Your task to perform on an android device: change alarm snooze length Image 0: 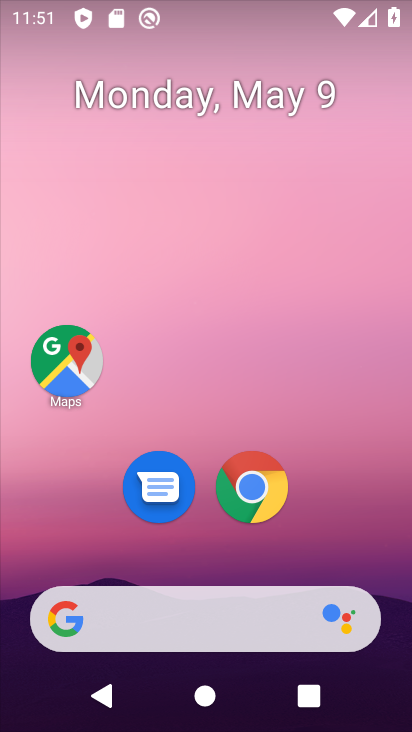
Step 0: drag from (327, 557) to (327, 218)
Your task to perform on an android device: change alarm snooze length Image 1: 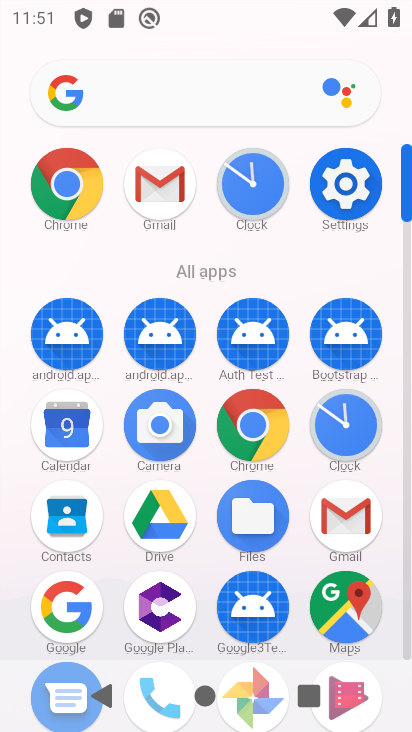
Step 1: click (258, 198)
Your task to perform on an android device: change alarm snooze length Image 2: 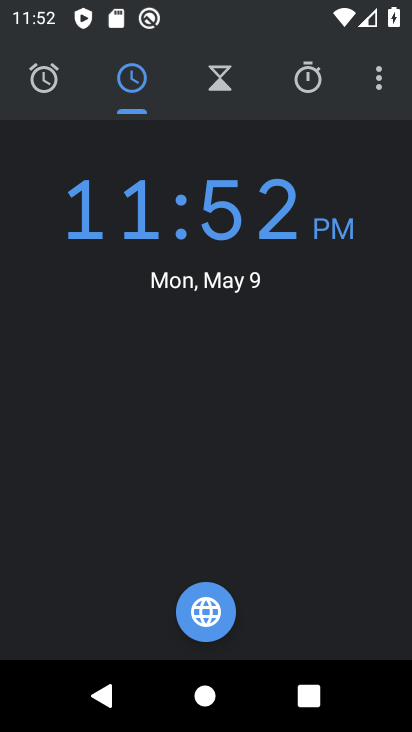
Step 2: click (378, 99)
Your task to perform on an android device: change alarm snooze length Image 3: 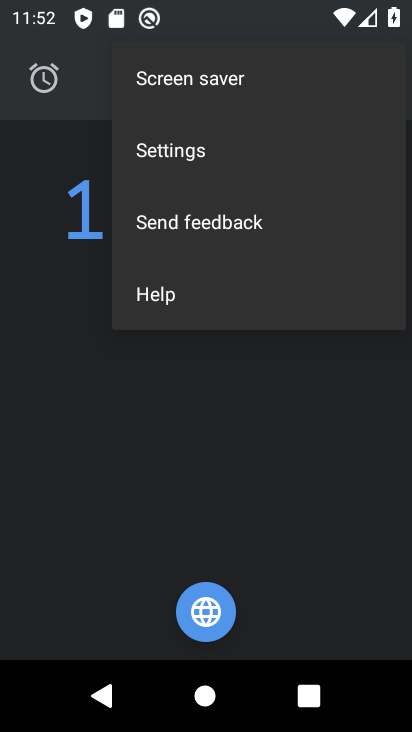
Step 3: click (253, 153)
Your task to perform on an android device: change alarm snooze length Image 4: 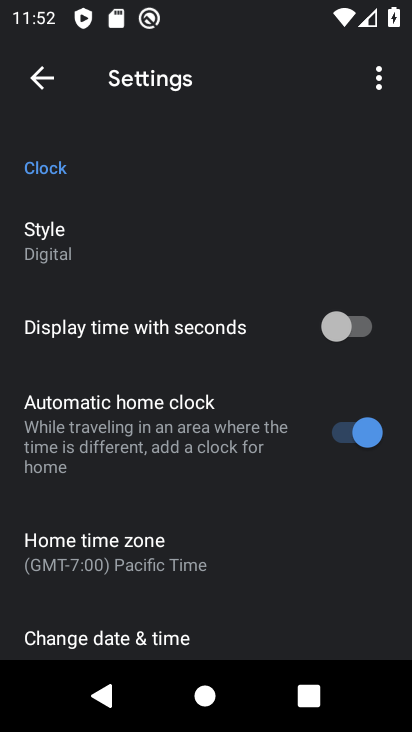
Step 4: drag from (143, 575) to (178, 347)
Your task to perform on an android device: change alarm snooze length Image 5: 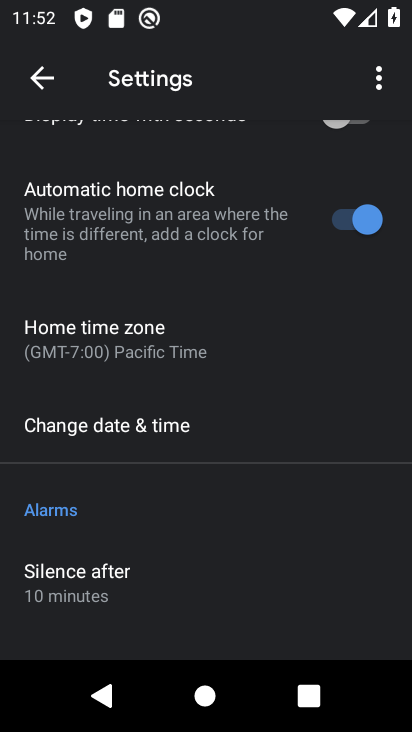
Step 5: drag from (157, 514) to (216, 316)
Your task to perform on an android device: change alarm snooze length Image 6: 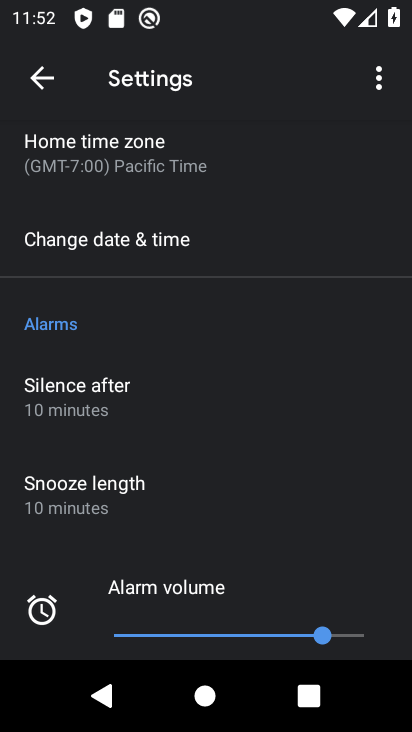
Step 6: click (160, 475)
Your task to perform on an android device: change alarm snooze length Image 7: 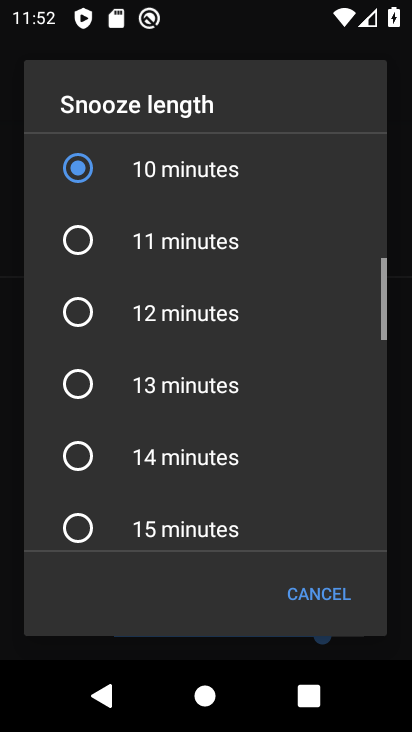
Step 7: click (192, 343)
Your task to perform on an android device: change alarm snooze length Image 8: 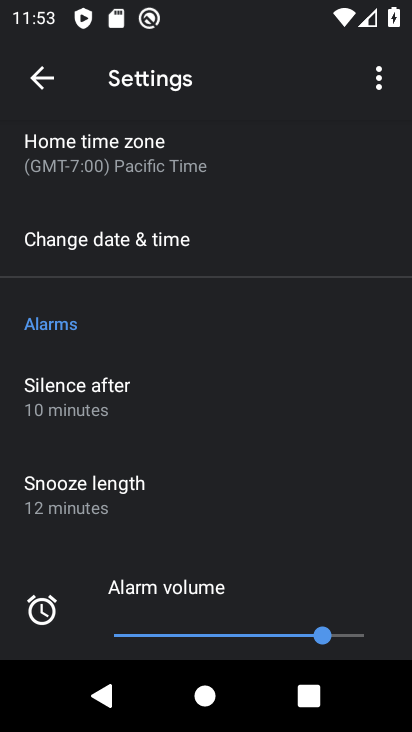
Step 8: task complete